Your task to perform on an android device: change your default location settings in chrome Image 0: 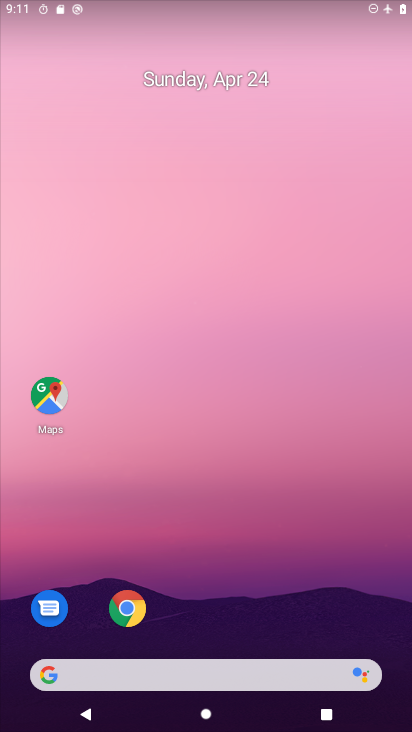
Step 0: click (132, 606)
Your task to perform on an android device: change your default location settings in chrome Image 1: 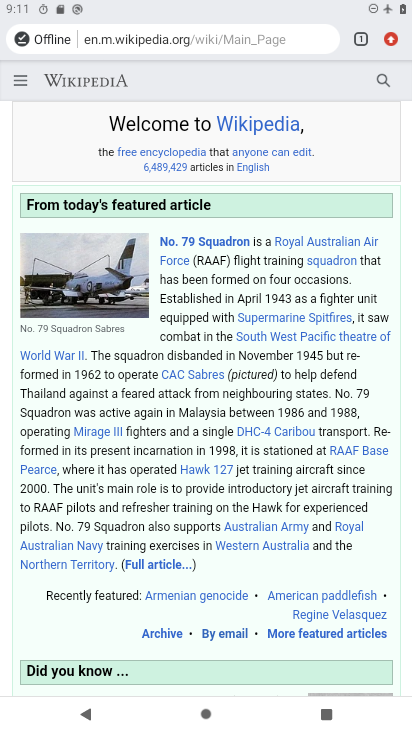
Step 1: click (392, 36)
Your task to perform on an android device: change your default location settings in chrome Image 2: 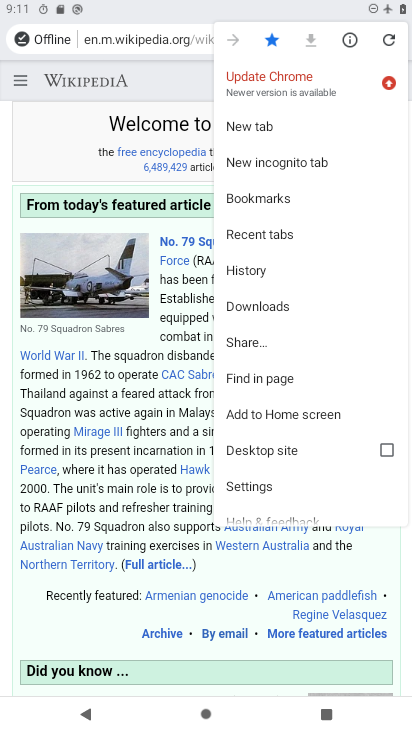
Step 2: click (272, 481)
Your task to perform on an android device: change your default location settings in chrome Image 3: 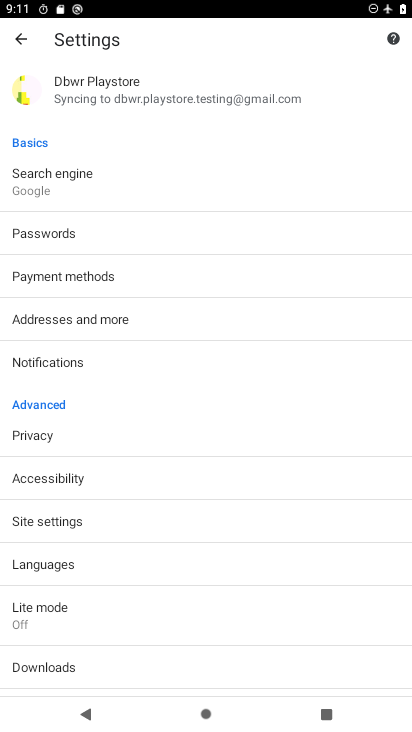
Step 3: click (272, 511)
Your task to perform on an android device: change your default location settings in chrome Image 4: 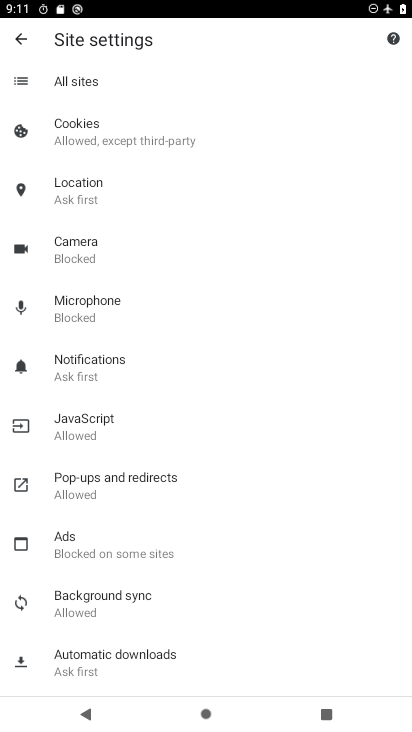
Step 4: click (107, 190)
Your task to perform on an android device: change your default location settings in chrome Image 5: 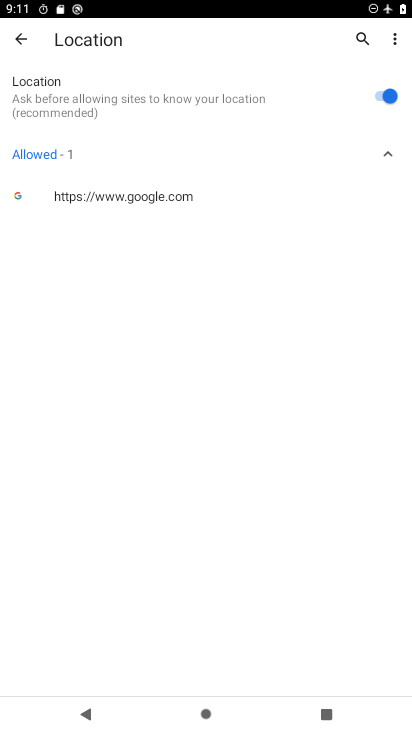
Step 5: click (372, 94)
Your task to perform on an android device: change your default location settings in chrome Image 6: 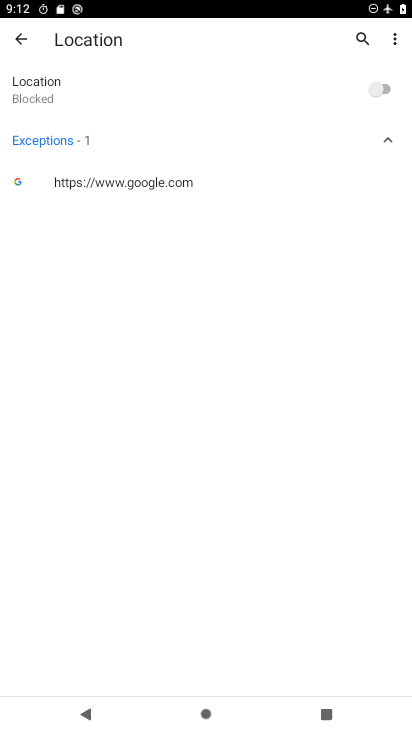
Step 6: task complete